Your task to perform on an android device: turn off location Image 0: 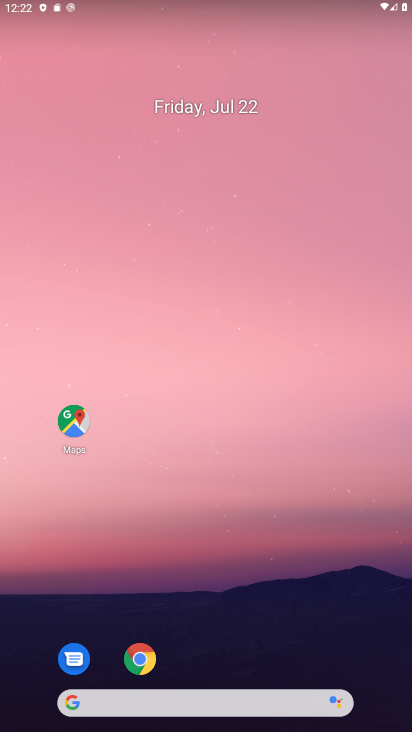
Step 0: drag from (218, 681) to (236, 24)
Your task to perform on an android device: turn off location Image 1: 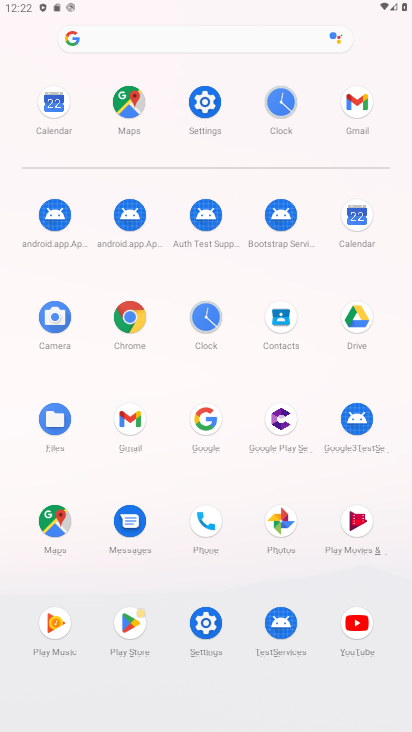
Step 1: click (212, 112)
Your task to perform on an android device: turn off location Image 2: 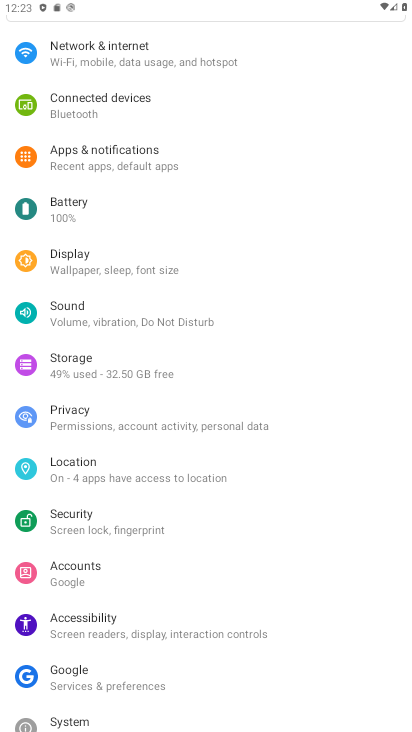
Step 2: click (120, 467)
Your task to perform on an android device: turn off location Image 3: 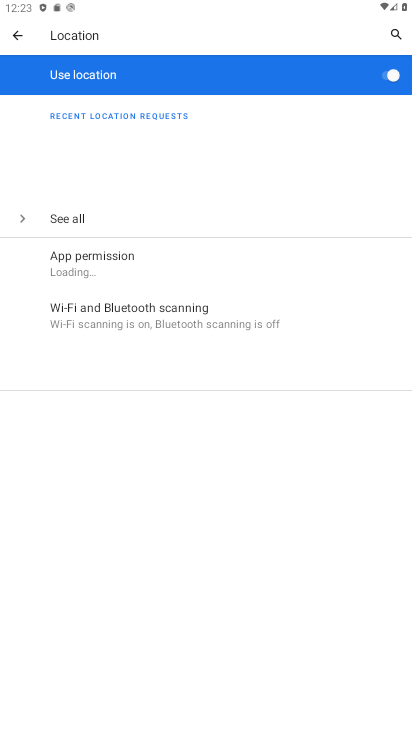
Step 3: task complete